Your task to perform on an android device: turn off javascript in the chrome app Image 0: 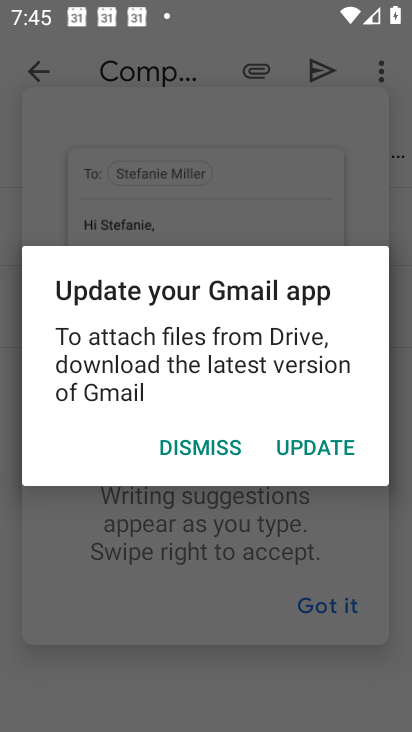
Step 0: press home button
Your task to perform on an android device: turn off javascript in the chrome app Image 1: 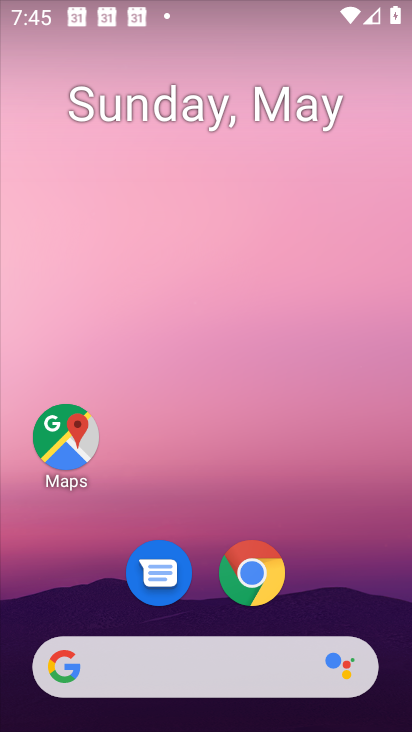
Step 1: click (251, 593)
Your task to perform on an android device: turn off javascript in the chrome app Image 2: 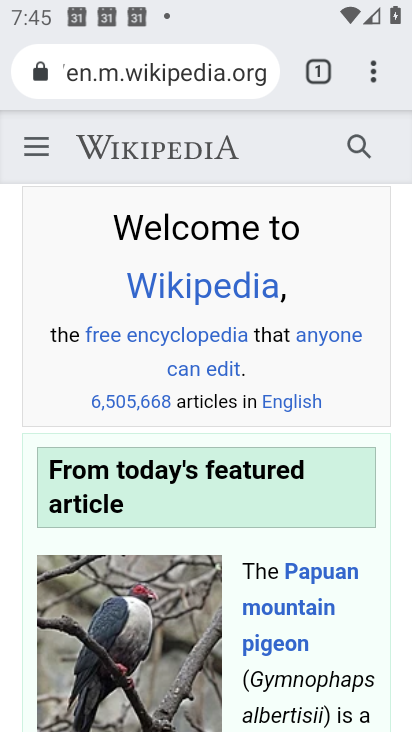
Step 2: click (372, 66)
Your task to perform on an android device: turn off javascript in the chrome app Image 3: 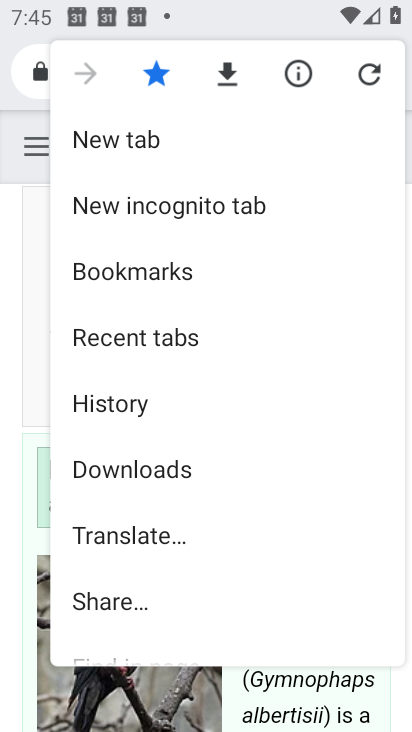
Step 3: drag from (226, 475) to (245, 141)
Your task to perform on an android device: turn off javascript in the chrome app Image 4: 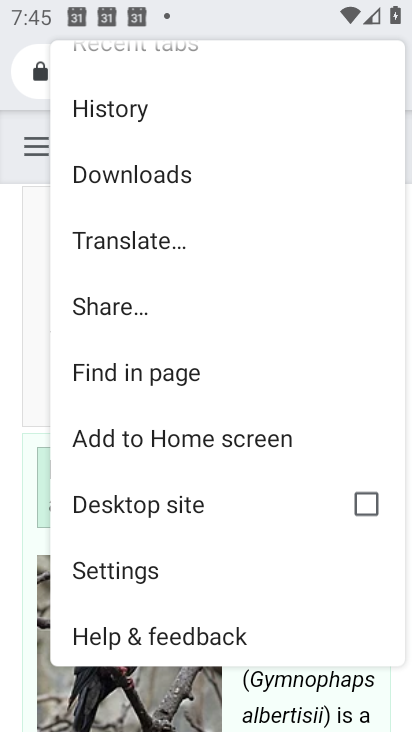
Step 4: click (149, 565)
Your task to perform on an android device: turn off javascript in the chrome app Image 5: 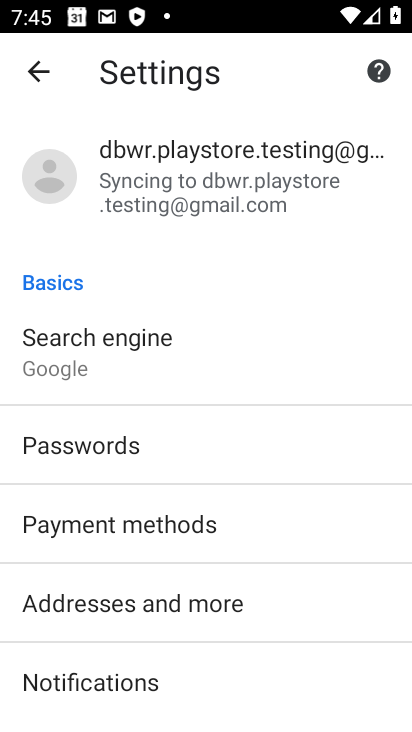
Step 5: drag from (233, 533) to (269, 140)
Your task to perform on an android device: turn off javascript in the chrome app Image 6: 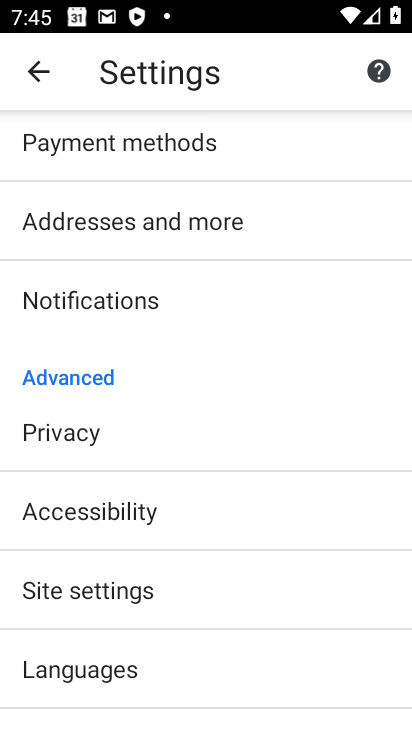
Step 6: click (176, 588)
Your task to perform on an android device: turn off javascript in the chrome app Image 7: 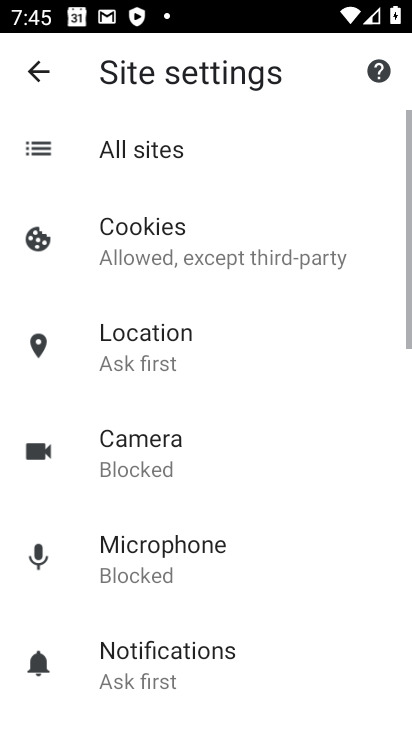
Step 7: drag from (234, 576) to (277, 233)
Your task to perform on an android device: turn off javascript in the chrome app Image 8: 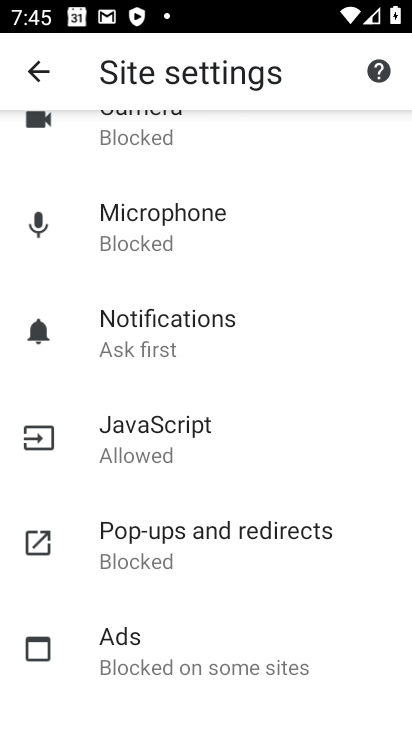
Step 8: click (216, 433)
Your task to perform on an android device: turn off javascript in the chrome app Image 9: 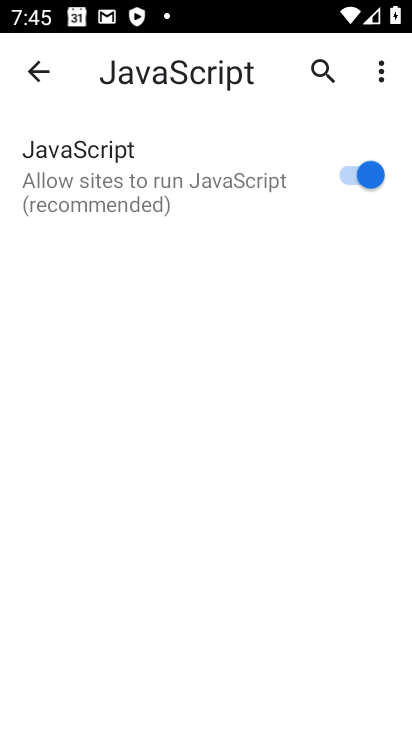
Step 9: click (361, 170)
Your task to perform on an android device: turn off javascript in the chrome app Image 10: 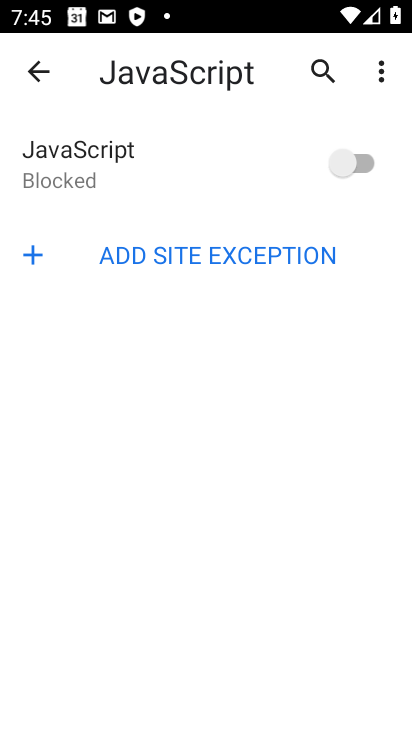
Step 10: task complete